Your task to perform on an android device: check data usage Image 0: 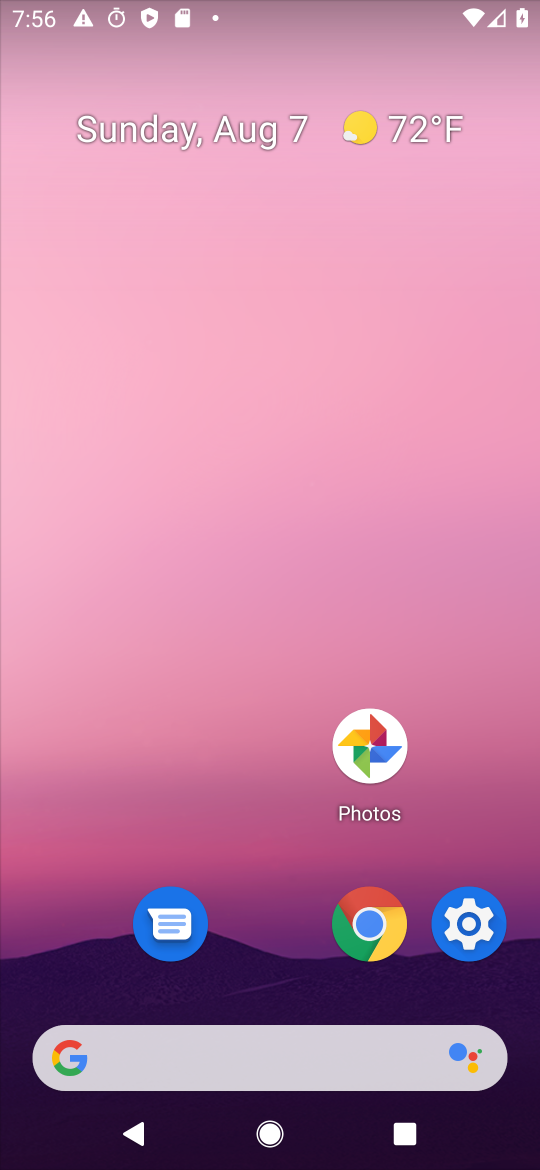
Step 0: drag from (307, 1091) to (381, 327)
Your task to perform on an android device: check data usage Image 1: 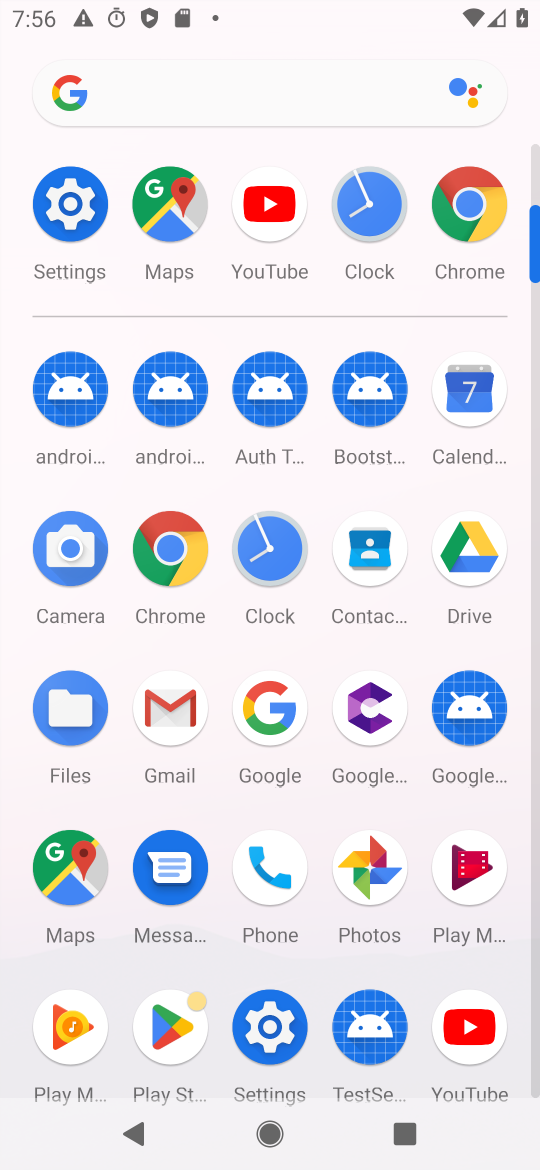
Step 1: click (68, 208)
Your task to perform on an android device: check data usage Image 2: 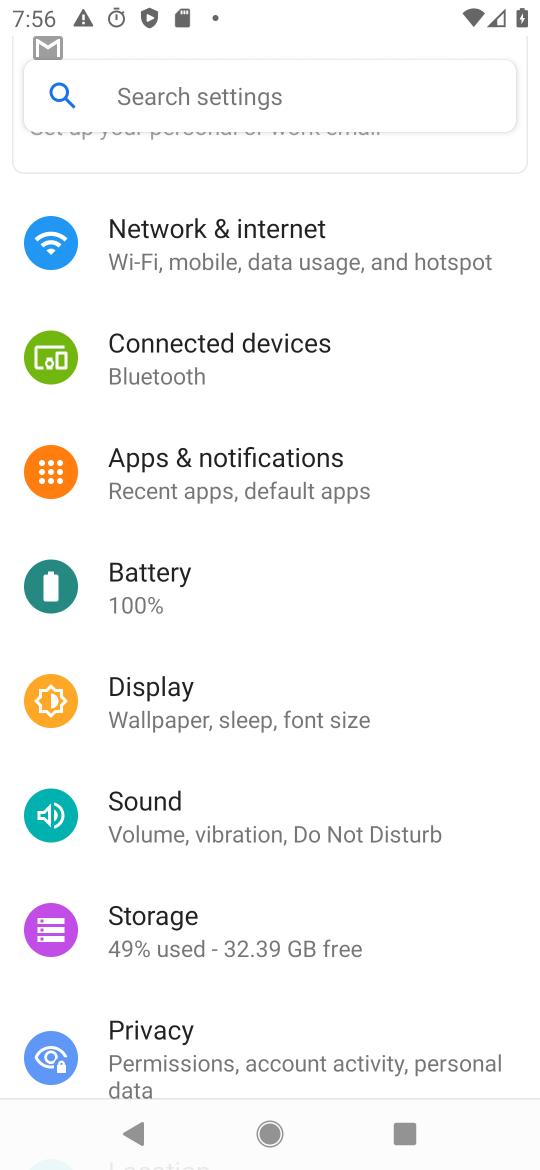
Step 2: click (182, 111)
Your task to perform on an android device: check data usage Image 3: 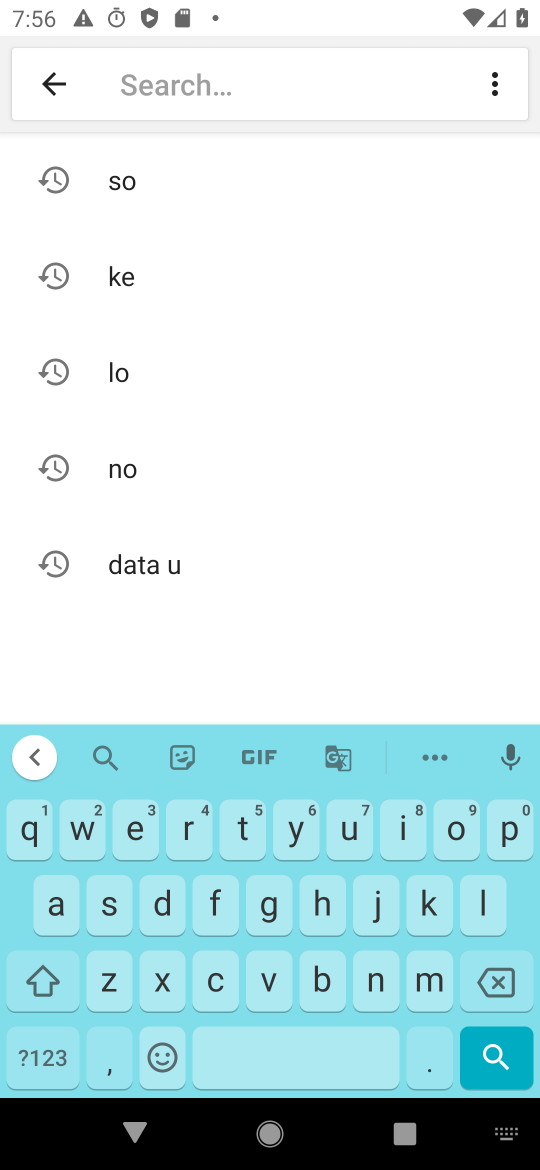
Step 3: click (149, 571)
Your task to perform on an android device: check data usage Image 4: 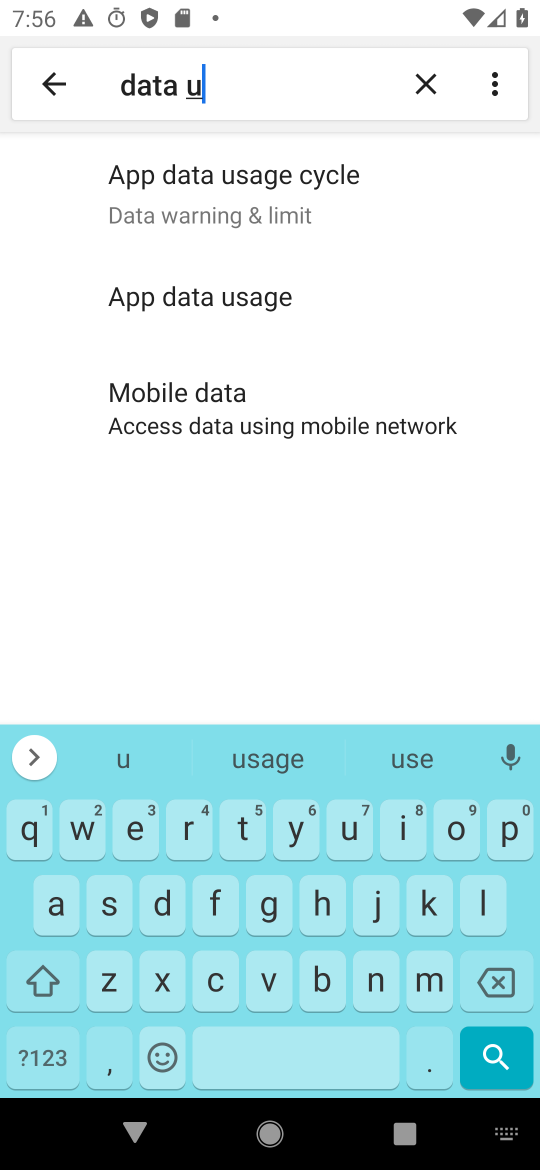
Step 4: click (253, 311)
Your task to perform on an android device: check data usage Image 5: 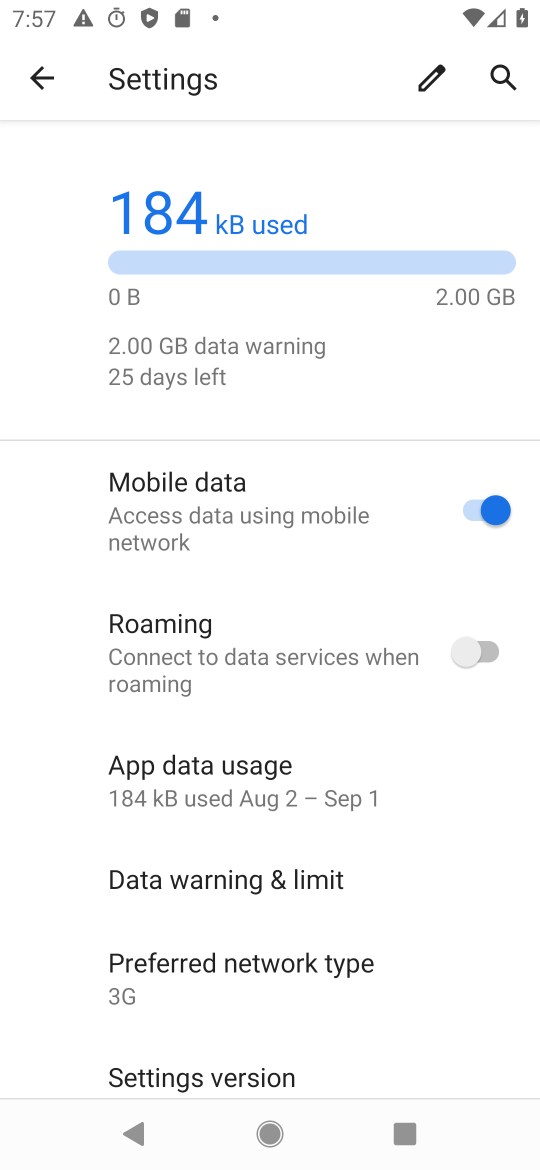
Step 5: task complete